Your task to perform on an android device: What's the weather today? Image 0: 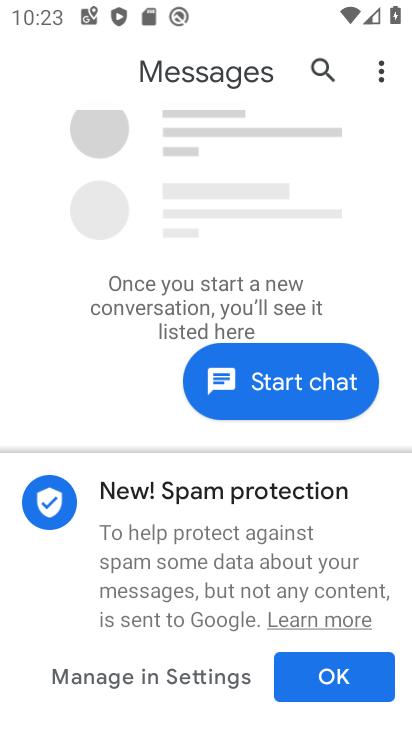
Step 0: press home button
Your task to perform on an android device: What's the weather today? Image 1: 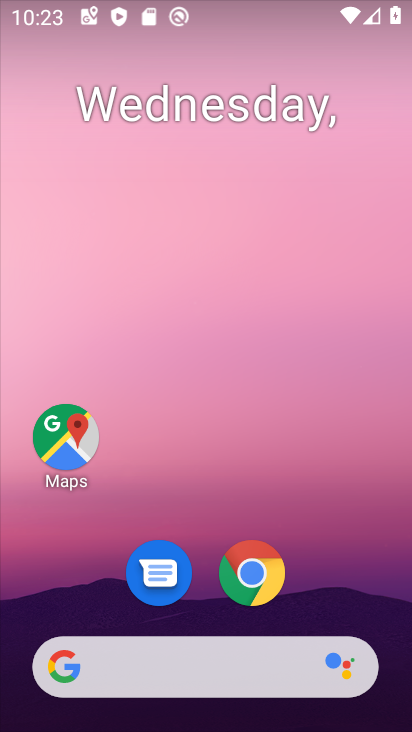
Step 1: drag from (202, 634) to (236, 163)
Your task to perform on an android device: What's the weather today? Image 2: 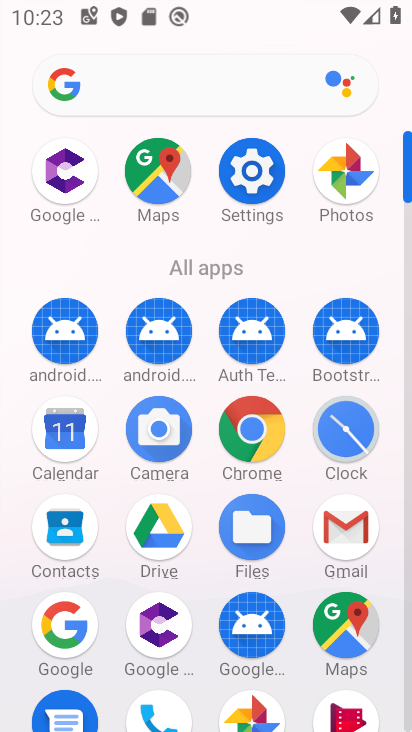
Step 2: click (70, 640)
Your task to perform on an android device: What's the weather today? Image 3: 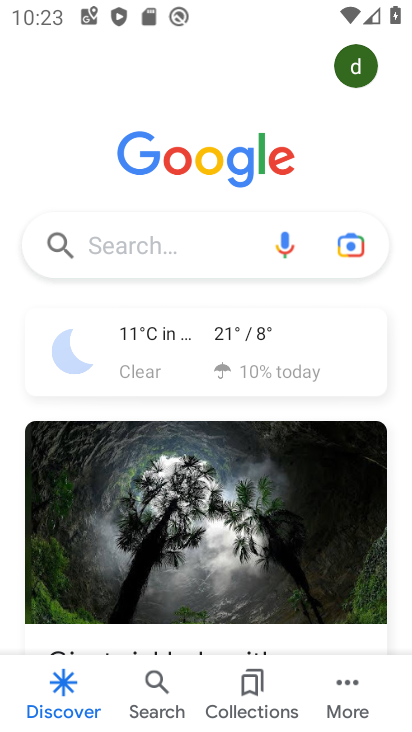
Step 3: click (120, 357)
Your task to perform on an android device: What's the weather today? Image 4: 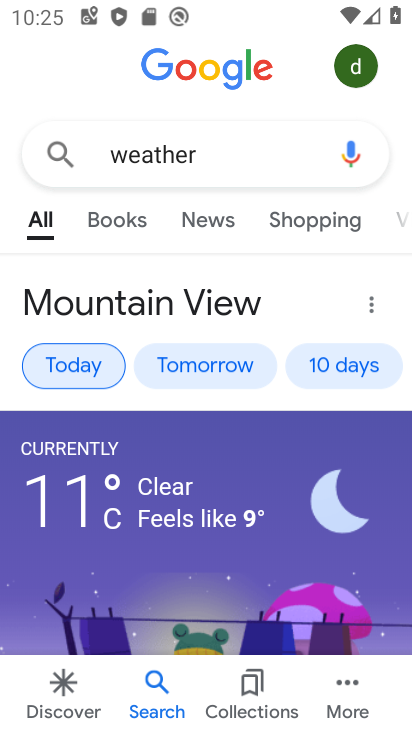
Step 4: task complete